Your task to perform on an android device: toggle javascript in the chrome app Image 0: 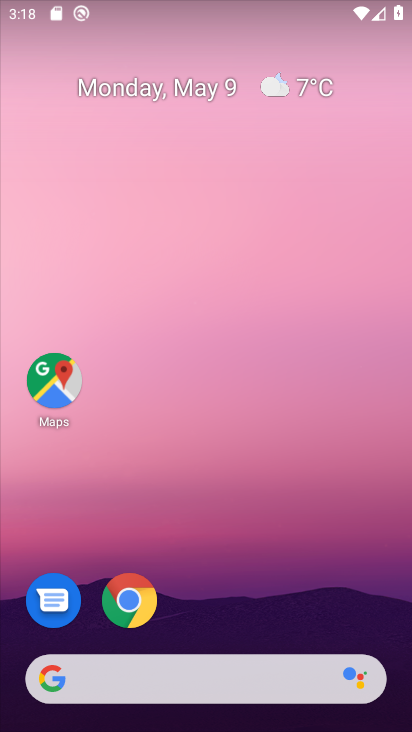
Step 0: click (123, 600)
Your task to perform on an android device: toggle javascript in the chrome app Image 1: 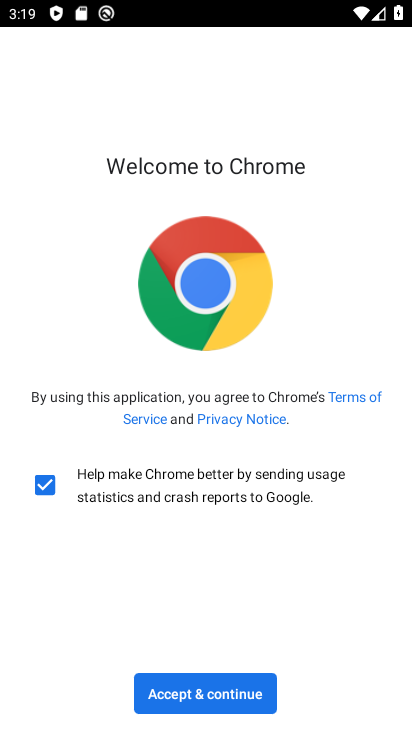
Step 1: click (198, 684)
Your task to perform on an android device: toggle javascript in the chrome app Image 2: 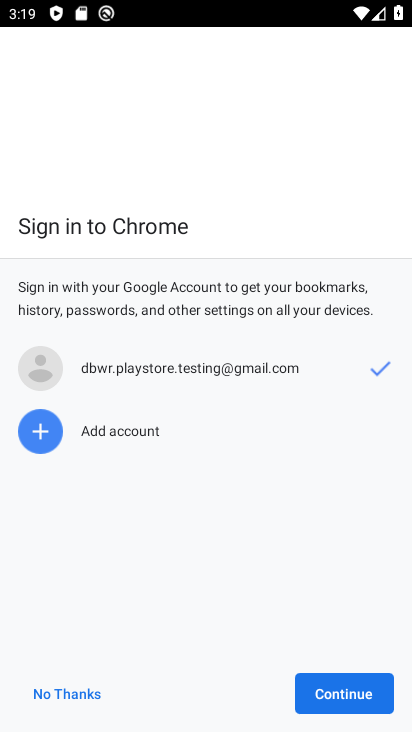
Step 2: click (370, 691)
Your task to perform on an android device: toggle javascript in the chrome app Image 3: 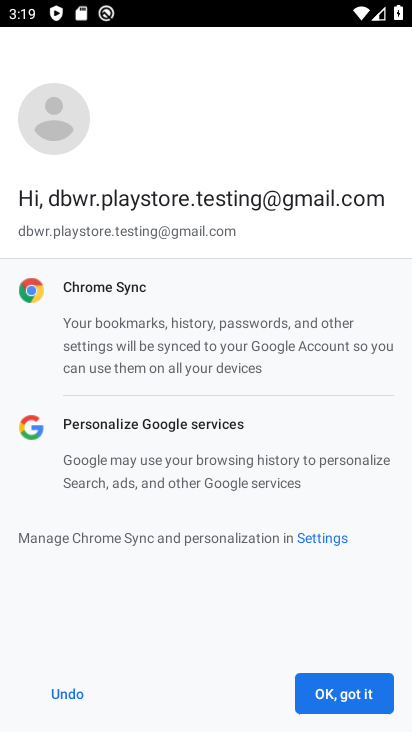
Step 3: click (324, 691)
Your task to perform on an android device: toggle javascript in the chrome app Image 4: 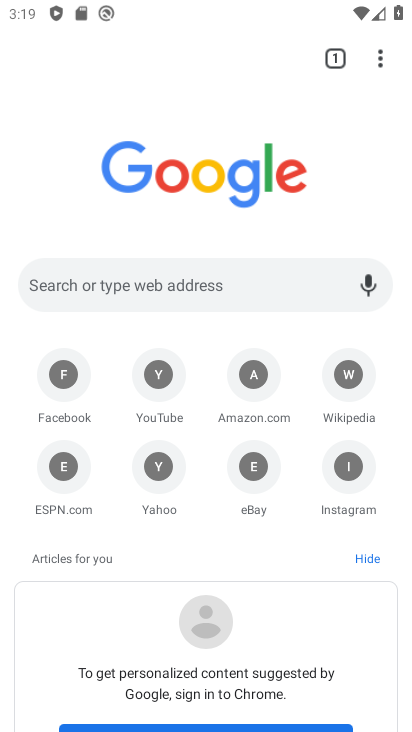
Step 4: click (386, 45)
Your task to perform on an android device: toggle javascript in the chrome app Image 5: 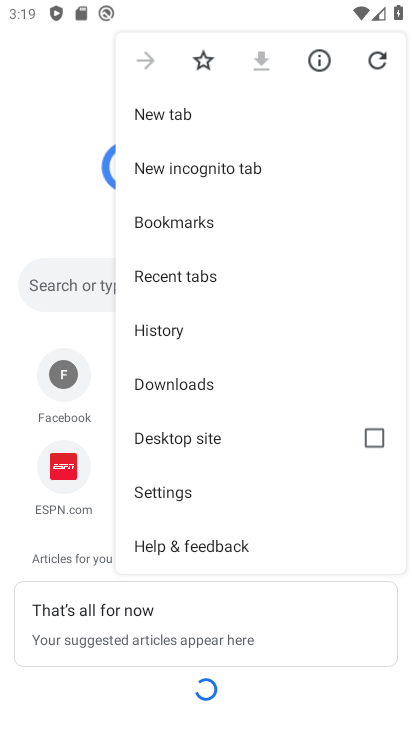
Step 5: click (177, 504)
Your task to perform on an android device: toggle javascript in the chrome app Image 6: 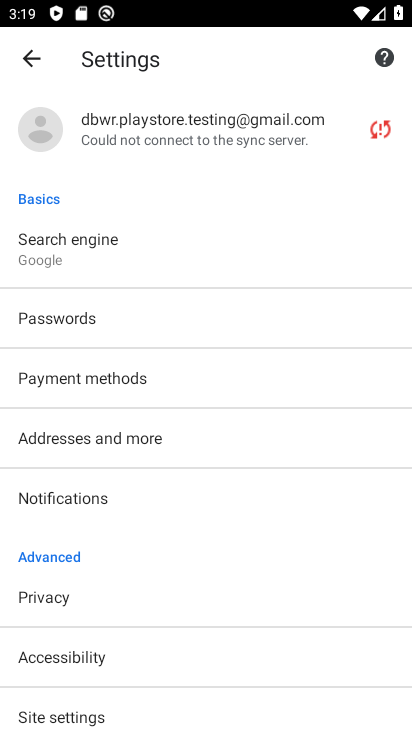
Step 6: drag from (216, 575) to (242, 72)
Your task to perform on an android device: toggle javascript in the chrome app Image 7: 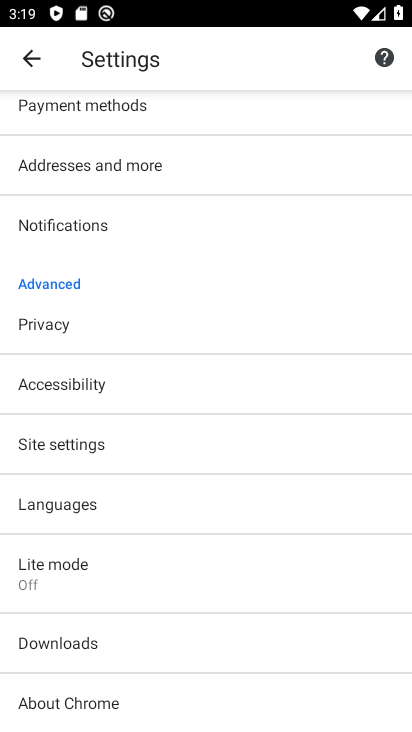
Step 7: click (119, 565)
Your task to perform on an android device: toggle javascript in the chrome app Image 8: 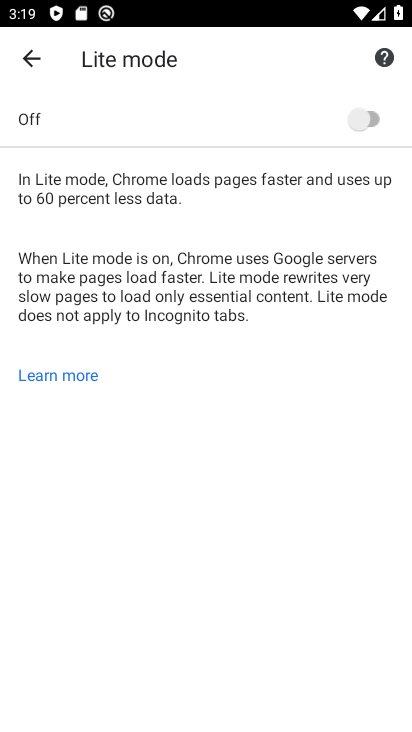
Step 8: click (34, 98)
Your task to perform on an android device: toggle javascript in the chrome app Image 9: 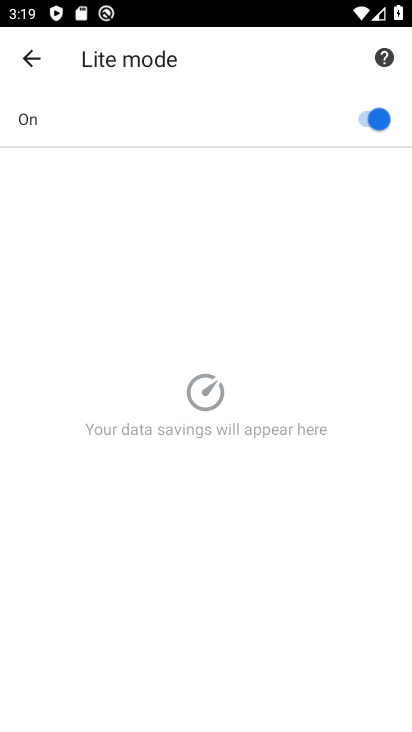
Step 9: click (370, 118)
Your task to perform on an android device: toggle javascript in the chrome app Image 10: 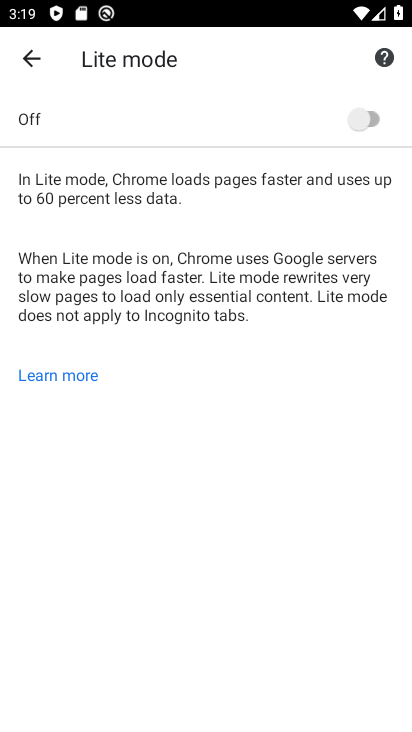
Step 10: click (22, 56)
Your task to perform on an android device: toggle javascript in the chrome app Image 11: 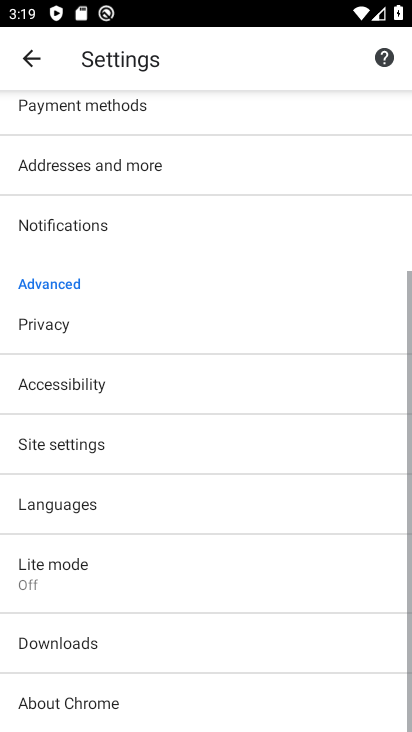
Step 11: click (191, 512)
Your task to perform on an android device: toggle javascript in the chrome app Image 12: 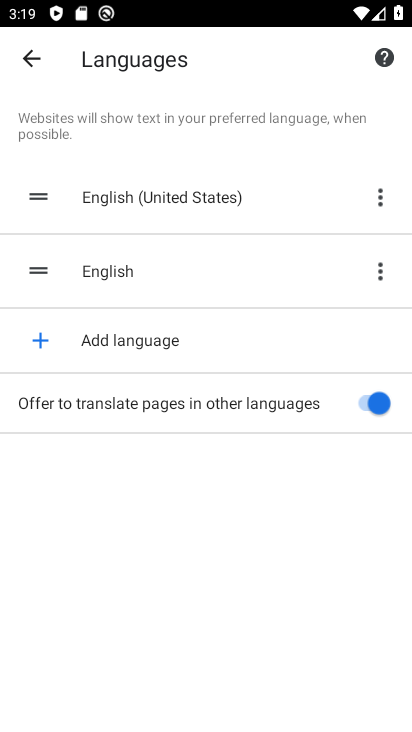
Step 12: click (382, 396)
Your task to perform on an android device: toggle javascript in the chrome app Image 13: 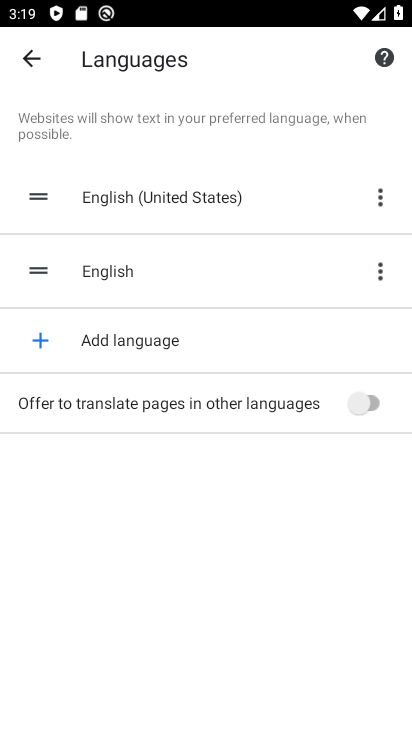
Step 13: task complete